Your task to perform on an android device: change notification settings in the gmail app Image 0: 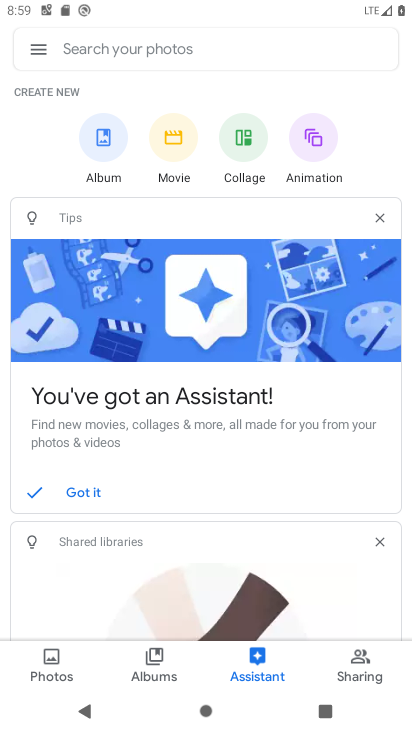
Step 0: press home button
Your task to perform on an android device: change notification settings in the gmail app Image 1: 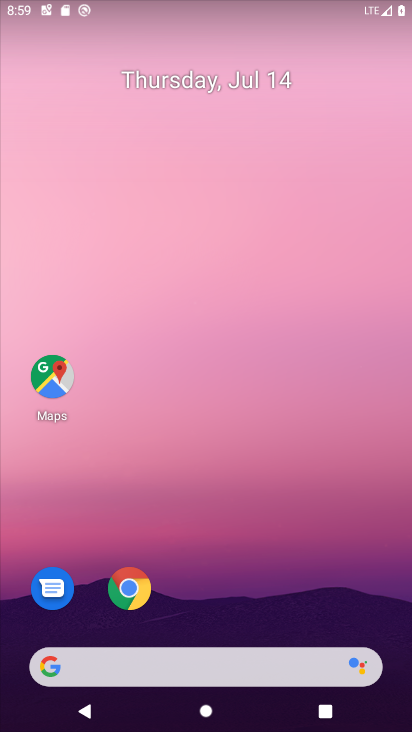
Step 1: drag from (245, 588) to (292, 68)
Your task to perform on an android device: change notification settings in the gmail app Image 2: 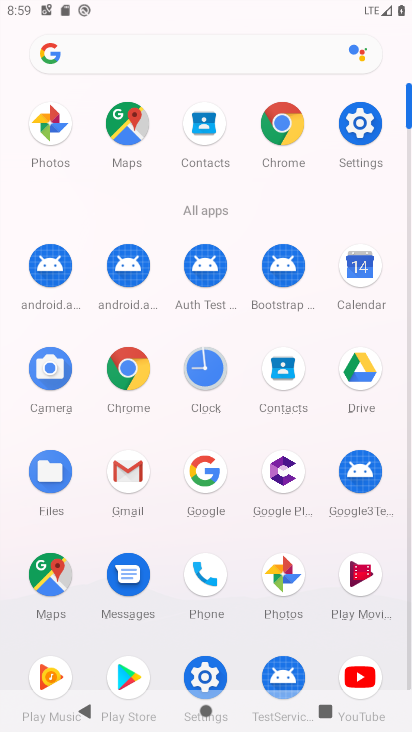
Step 2: click (132, 469)
Your task to perform on an android device: change notification settings in the gmail app Image 3: 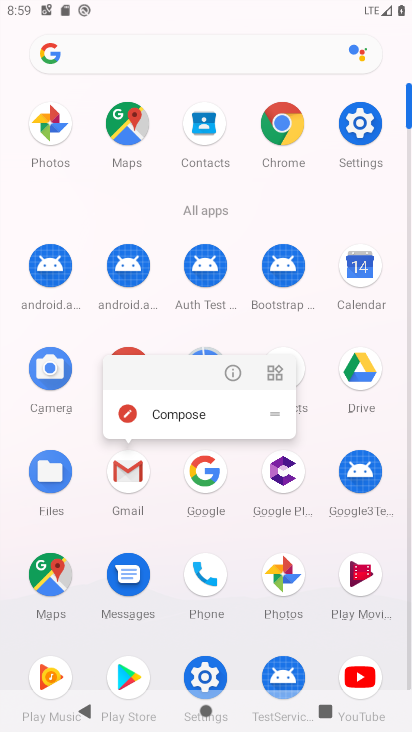
Step 3: click (231, 369)
Your task to perform on an android device: change notification settings in the gmail app Image 4: 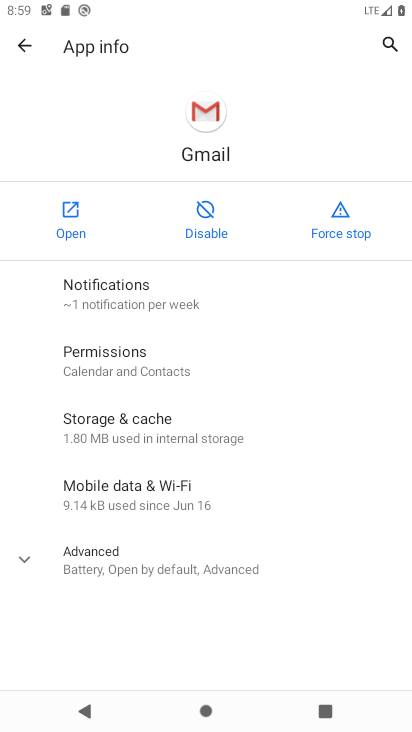
Step 4: click (181, 300)
Your task to perform on an android device: change notification settings in the gmail app Image 5: 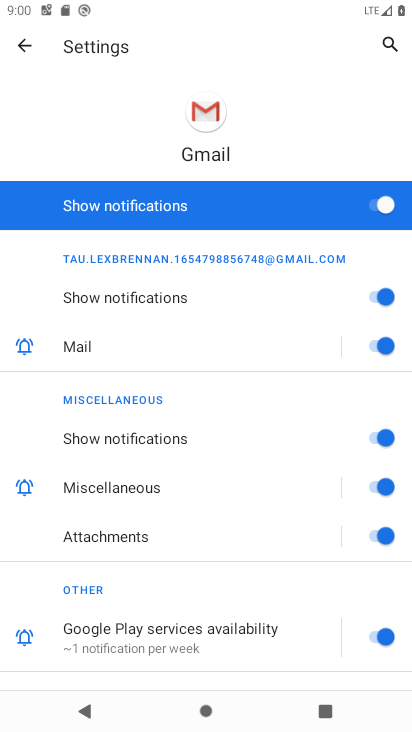
Step 5: click (377, 291)
Your task to perform on an android device: change notification settings in the gmail app Image 6: 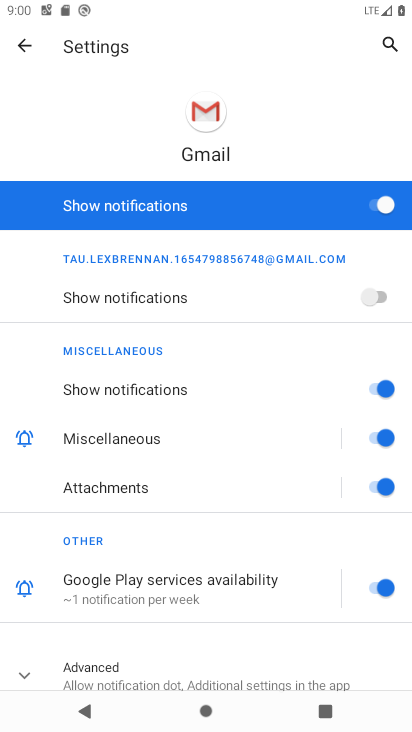
Step 6: task complete